Your task to perform on an android device: change the clock style Image 0: 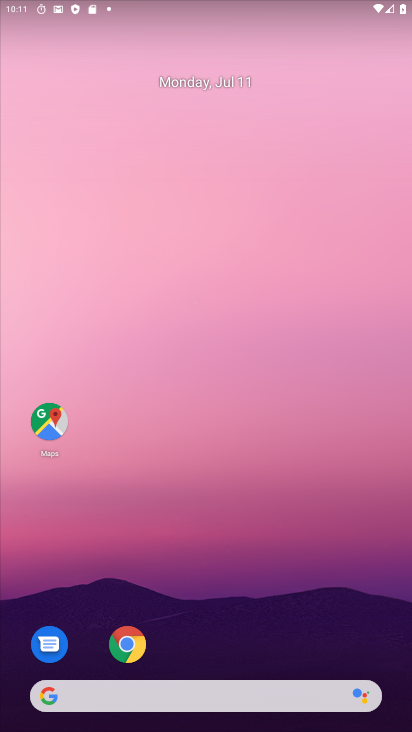
Step 0: drag from (239, 638) to (296, 76)
Your task to perform on an android device: change the clock style Image 1: 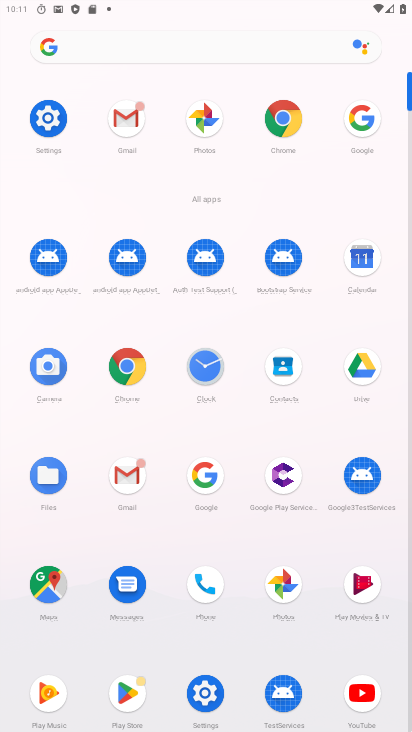
Step 1: click (205, 370)
Your task to perform on an android device: change the clock style Image 2: 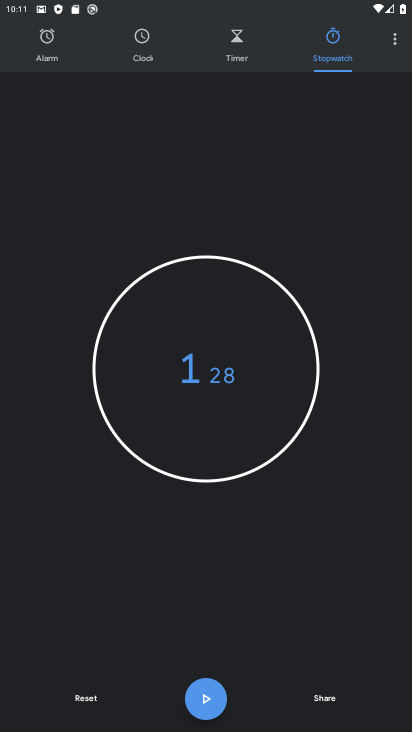
Step 2: click (390, 37)
Your task to perform on an android device: change the clock style Image 3: 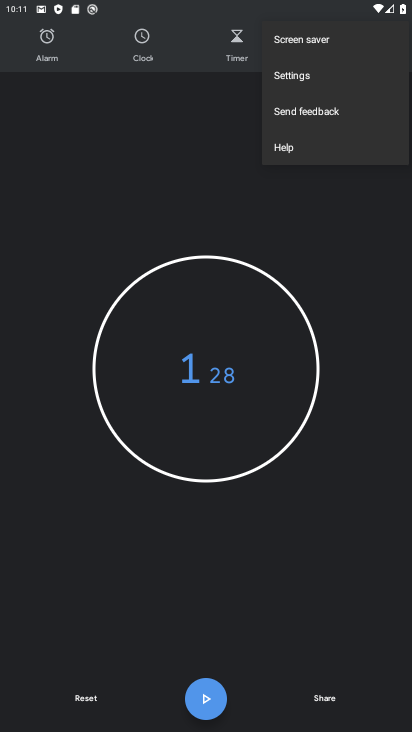
Step 3: click (301, 73)
Your task to perform on an android device: change the clock style Image 4: 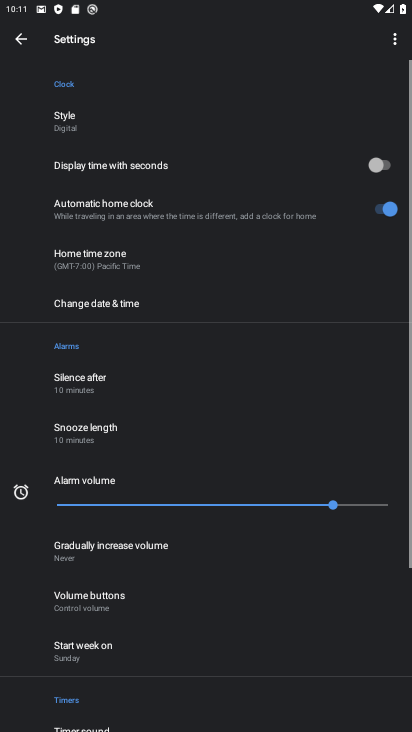
Step 4: click (120, 127)
Your task to perform on an android device: change the clock style Image 5: 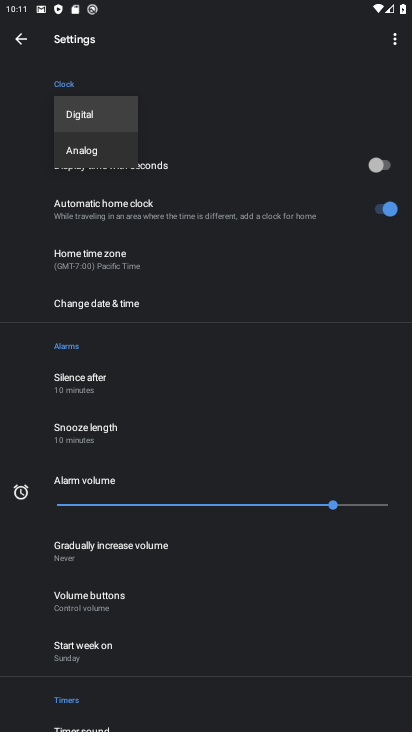
Step 5: click (97, 147)
Your task to perform on an android device: change the clock style Image 6: 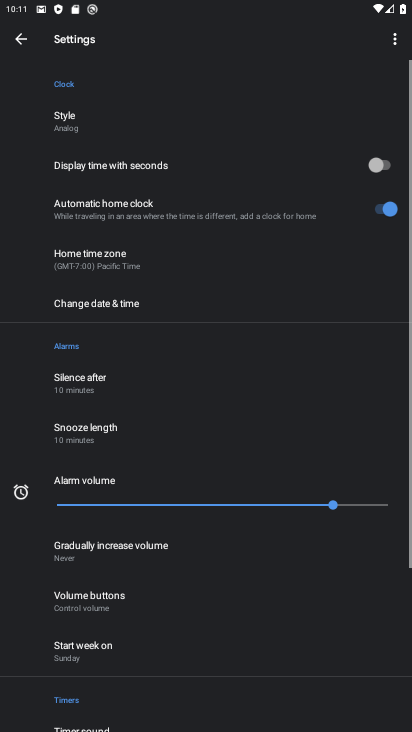
Step 6: task complete